Your task to perform on an android device: turn on notifications settings in the gmail app Image 0: 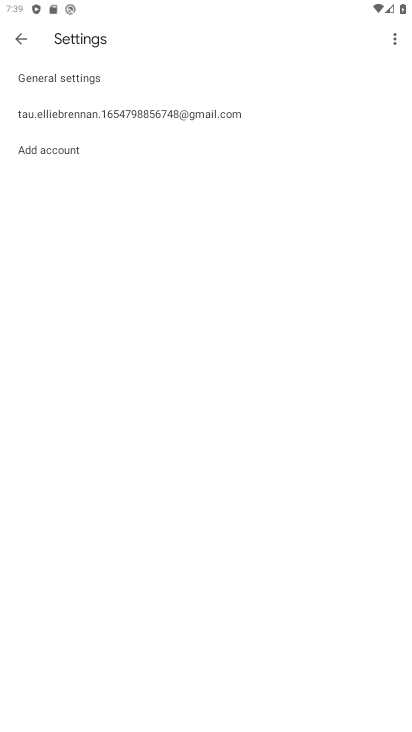
Step 0: press home button
Your task to perform on an android device: turn on notifications settings in the gmail app Image 1: 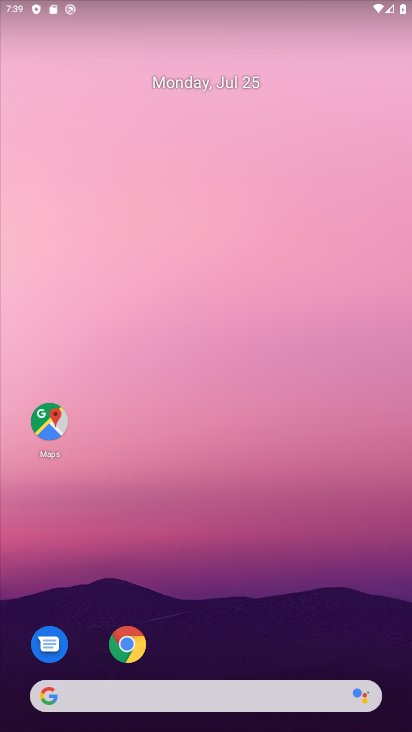
Step 1: drag from (172, 497) to (208, 161)
Your task to perform on an android device: turn on notifications settings in the gmail app Image 2: 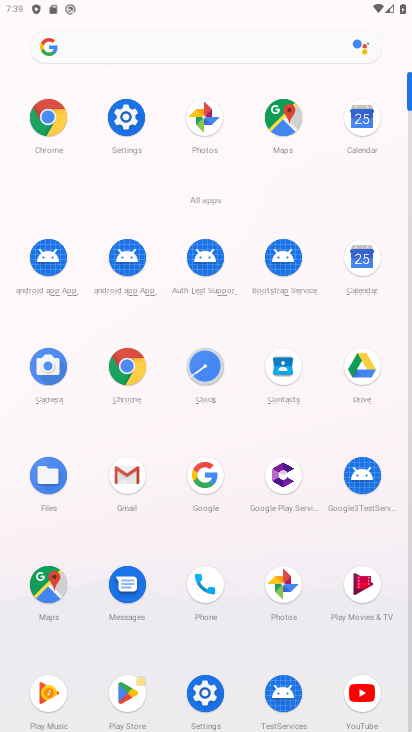
Step 2: click (128, 480)
Your task to perform on an android device: turn on notifications settings in the gmail app Image 3: 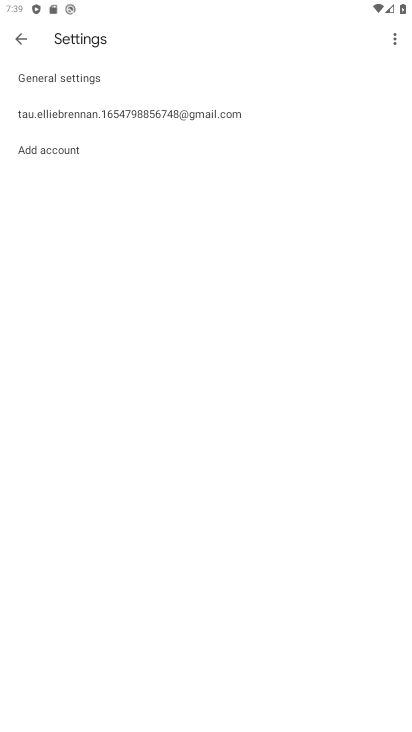
Step 3: click (147, 108)
Your task to perform on an android device: turn on notifications settings in the gmail app Image 4: 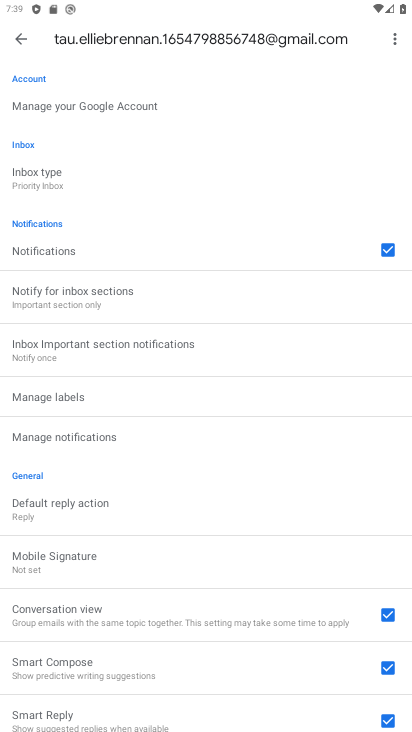
Step 4: click (39, 440)
Your task to perform on an android device: turn on notifications settings in the gmail app Image 5: 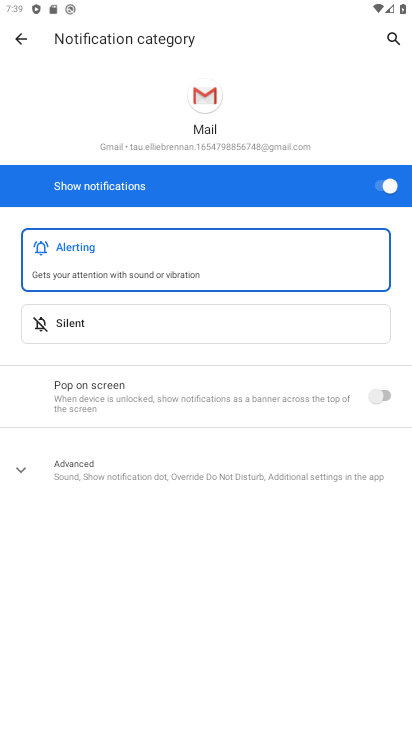
Step 5: task complete